Your task to perform on an android device: Open the Play Movies app and select the watchlist tab. Image 0: 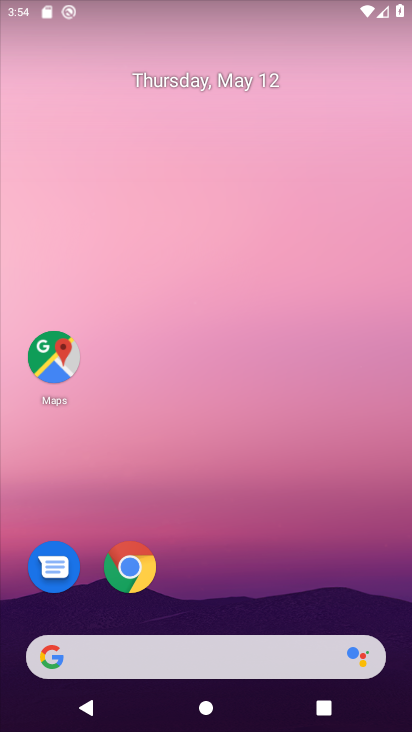
Step 0: drag from (296, 682) to (331, 98)
Your task to perform on an android device: Open the Play Movies app and select the watchlist tab. Image 1: 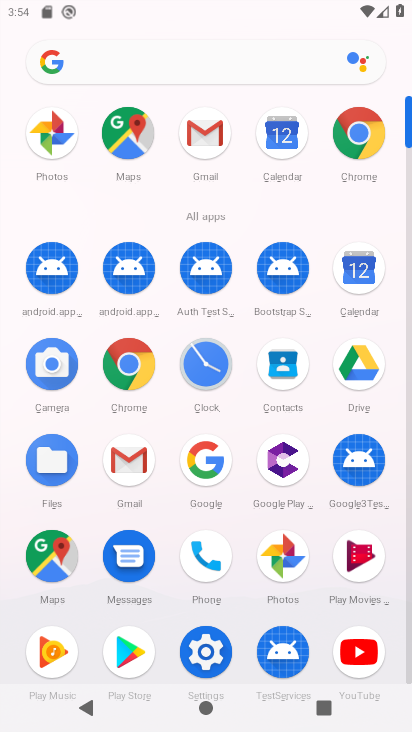
Step 1: click (359, 545)
Your task to perform on an android device: Open the Play Movies app and select the watchlist tab. Image 2: 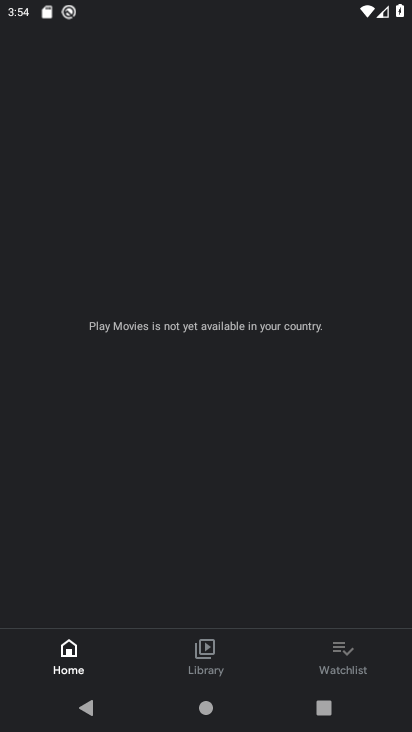
Step 2: click (351, 662)
Your task to perform on an android device: Open the Play Movies app and select the watchlist tab. Image 3: 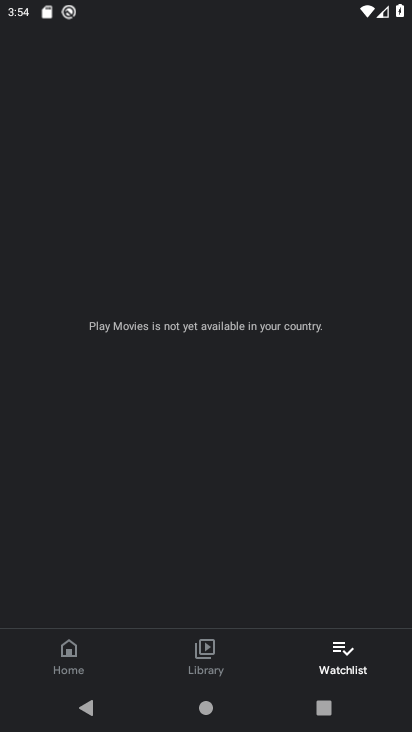
Step 3: task complete